Your task to perform on an android device: toggle notifications settings in the gmail app Image 0: 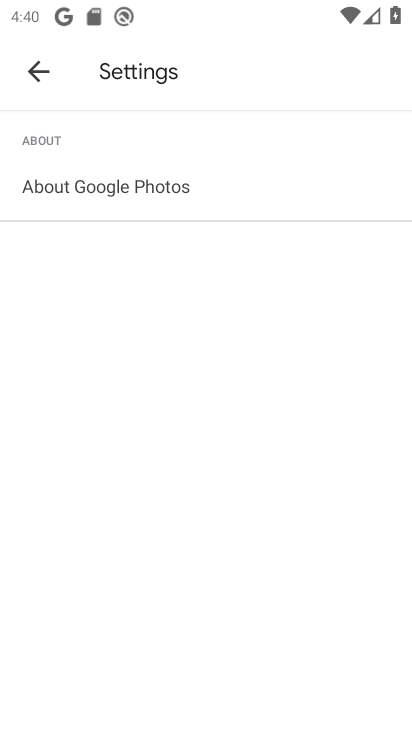
Step 0: press home button
Your task to perform on an android device: toggle notifications settings in the gmail app Image 1: 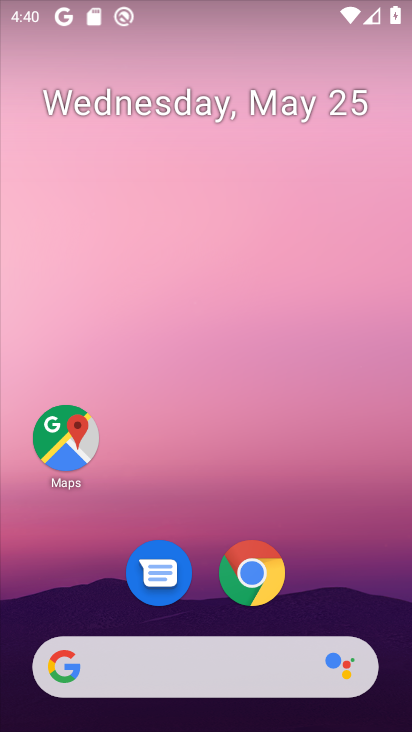
Step 1: drag from (219, 715) to (223, 55)
Your task to perform on an android device: toggle notifications settings in the gmail app Image 2: 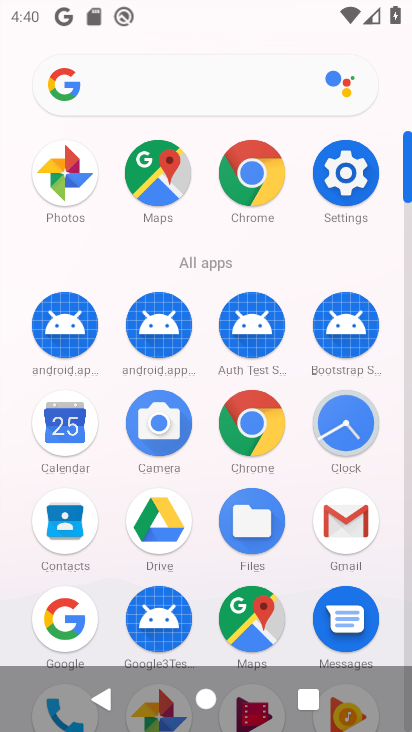
Step 2: click (344, 529)
Your task to perform on an android device: toggle notifications settings in the gmail app Image 3: 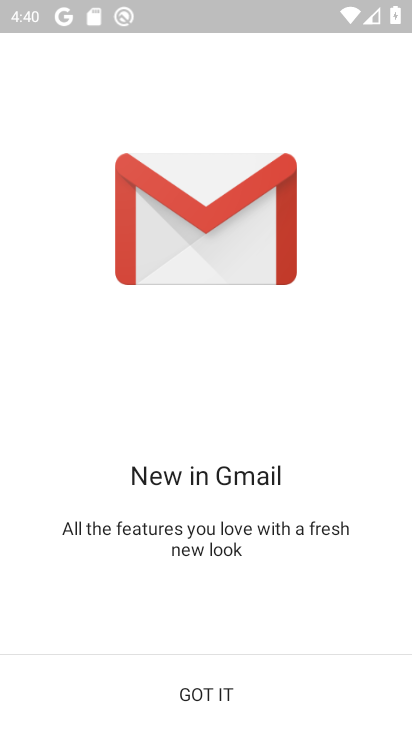
Step 3: click (199, 696)
Your task to perform on an android device: toggle notifications settings in the gmail app Image 4: 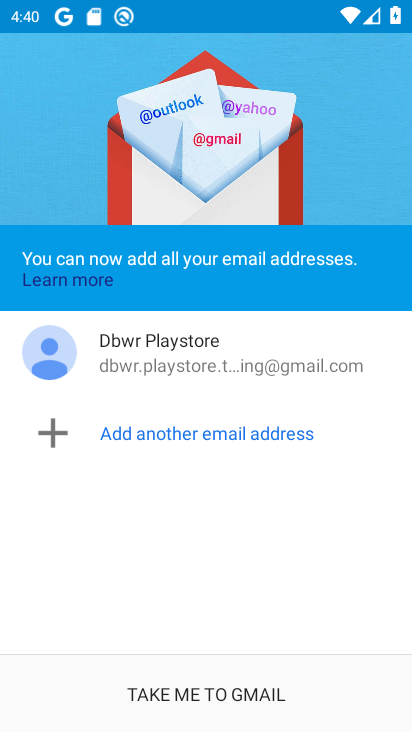
Step 4: click (200, 694)
Your task to perform on an android device: toggle notifications settings in the gmail app Image 5: 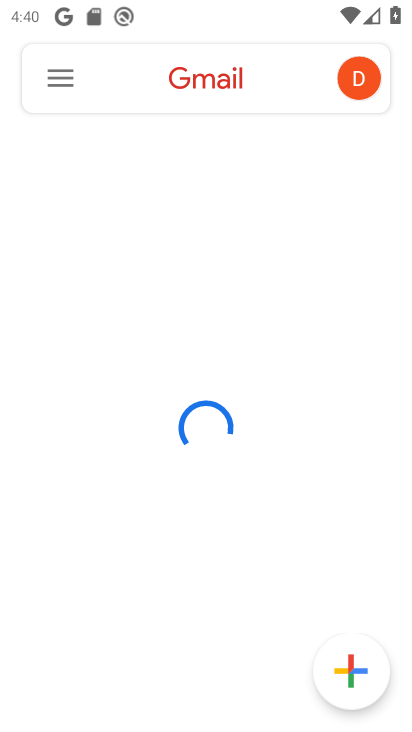
Step 5: click (60, 71)
Your task to perform on an android device: toggle notifications settings in the gmail app Image 6: 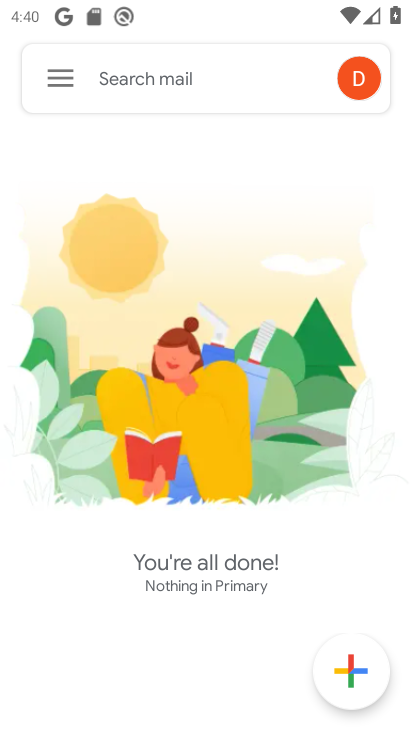
Step 6: click (61, 78)
Your task to perform on an android device: toggle notifications settings in the gmail app Image 7: 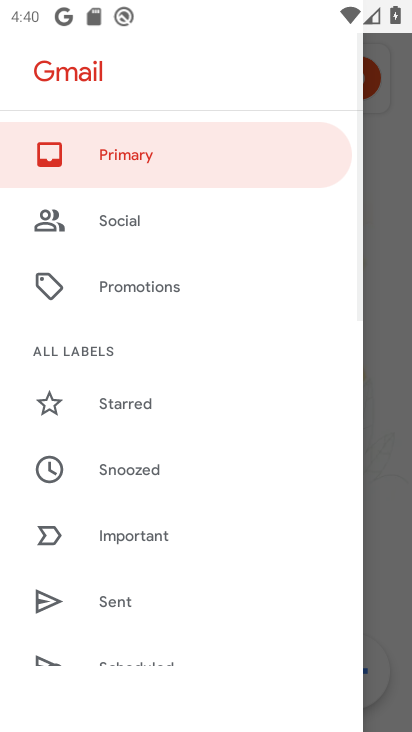
Step 7: drag from (110, 567) to (131, 153)
Your task to perform on an android device: toggle notifications settings in the gmail app Image 8: 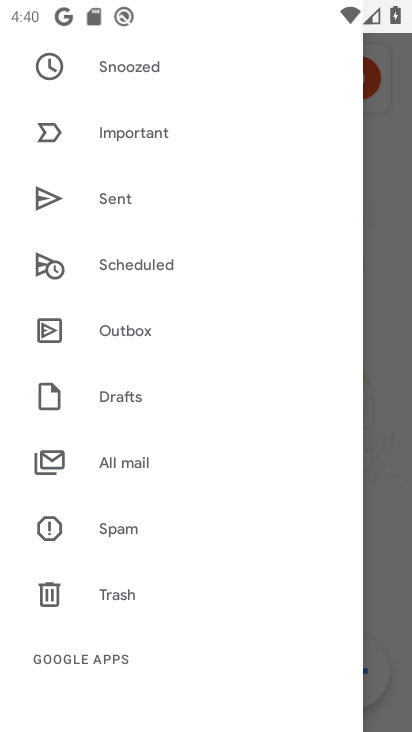
Step 8: drag from (131, 595) to (142, 287)
Your task to perform on an android device: toggle notifications settings in the gmail app Image 9: 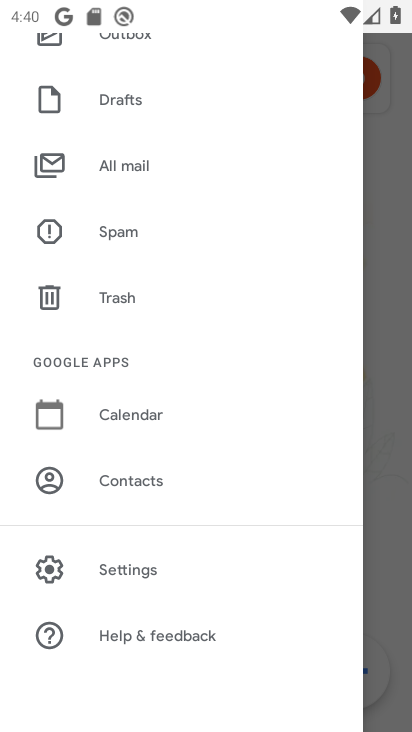
Step 9: click (131, 564)
Your task to perform on an android device: toggle notifications settings in the gmail app Image 10: 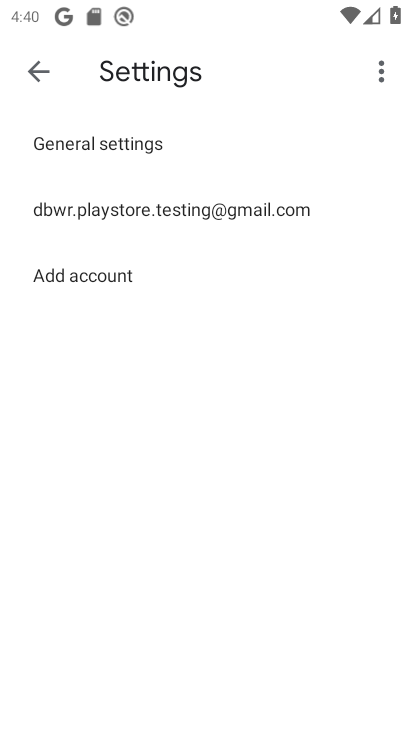
Step 10: click (201, 211)
Your task to perform on an android device: toggle notifications settings in the gmail app Image 11: 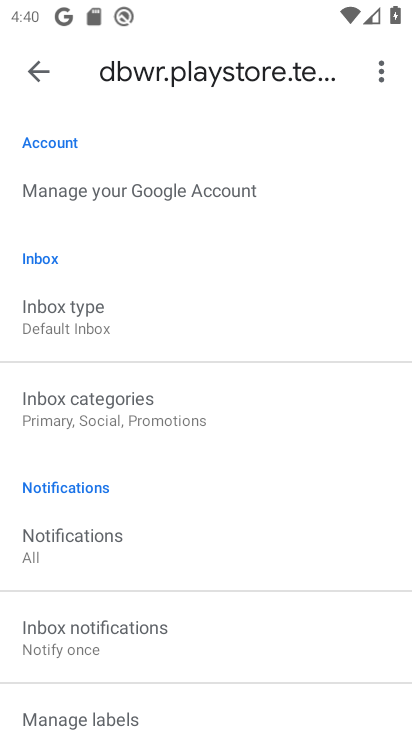
Step 11: drag from (149, 579) to (162, 296)
Your task to perform on an android device: toggle notifications settings in the gmail app Image 12: 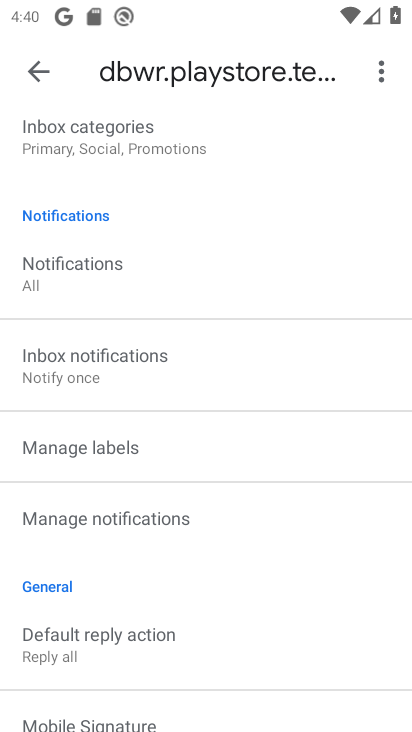
Step 12: click (89, 256)
Your task to perform on an android device: toggle notifications settings in the gmail app Image 13: 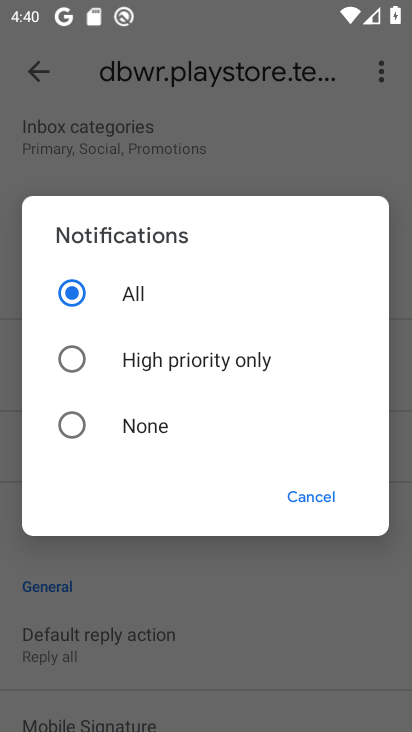
Step 13: click (82, 429)
Your task to perform on an android device: toggle notifications settings in the gmail app Image 14: 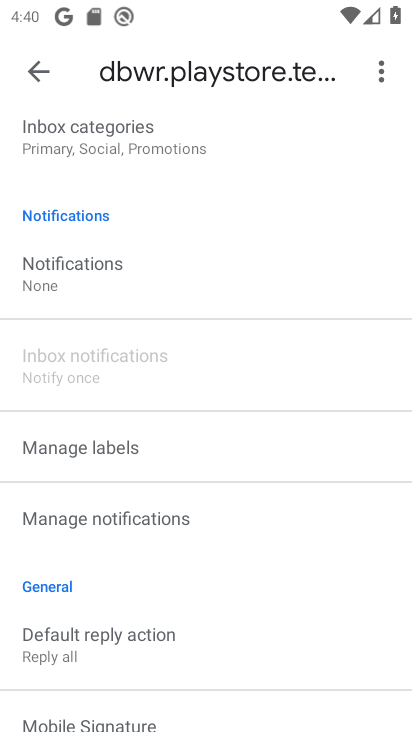
Step 14: task complete